Your task to perform on an android device: Open the map Image 0: 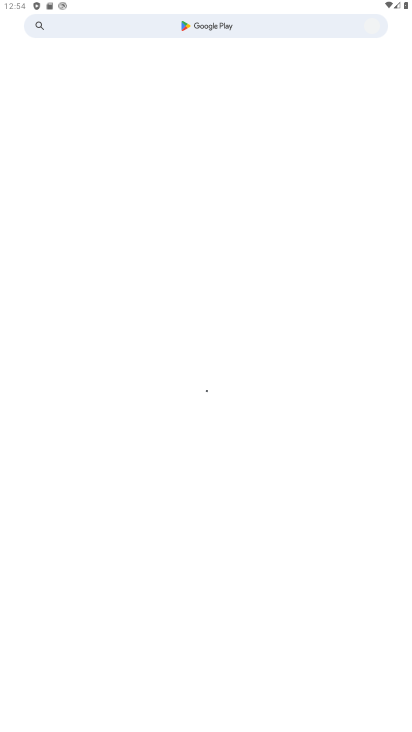
Step 0: press home button
Your task to perform on an android device: Open the map Image 1: 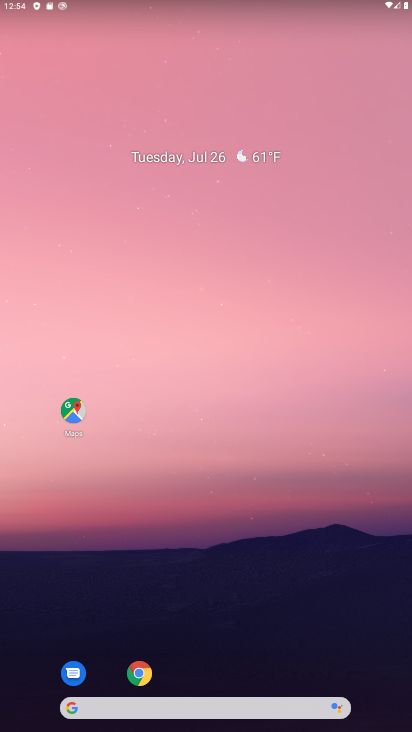
Step 1: click (65, 417)
Your task to perform on an android device: Open the map Image 2: 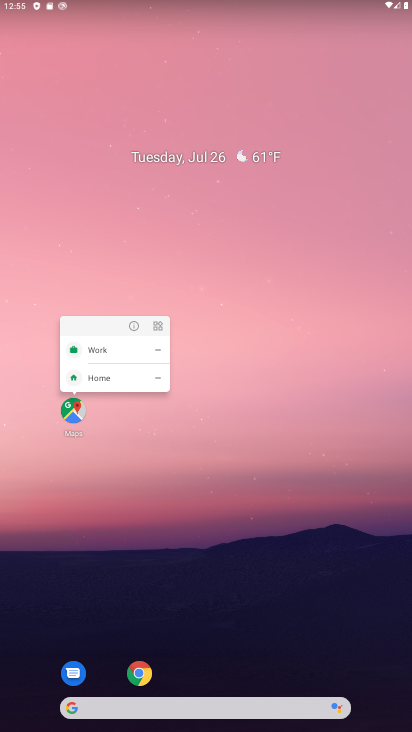
Step 2: click (65, 417)
Your task to perform on an android device: Open the map Image 3: 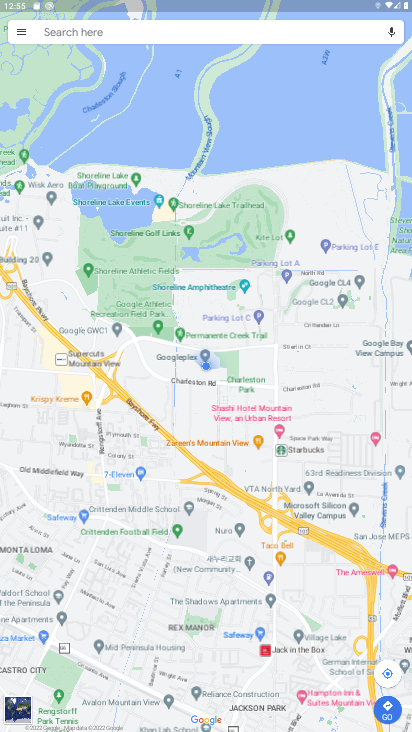
Step 3: task complete